Your task to perform on an android device: allow notifications from all sites in the chrome app Image 0: 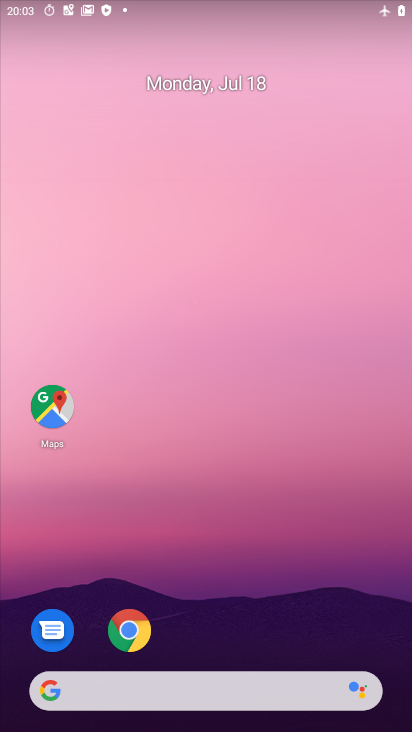
Step 0: drag from (251, 540) to (199, 47)
Your task to perform on an android device: allow notifications from all sites in the chrome app Image 1: 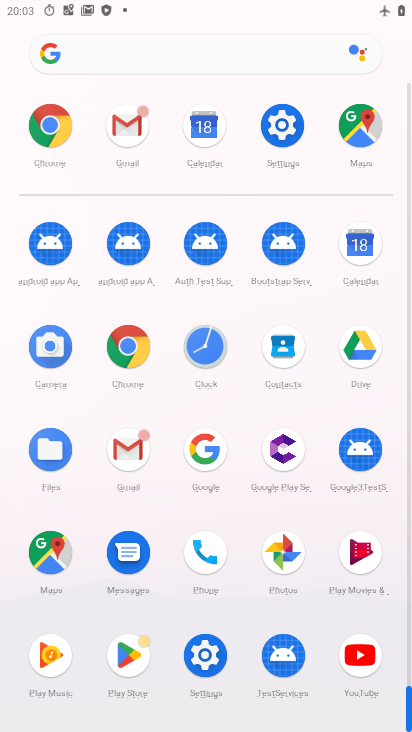
Step 1: click (75, 130)
Your task to perform on an android device: allow notifications from all sites in the chrome app Image 2: 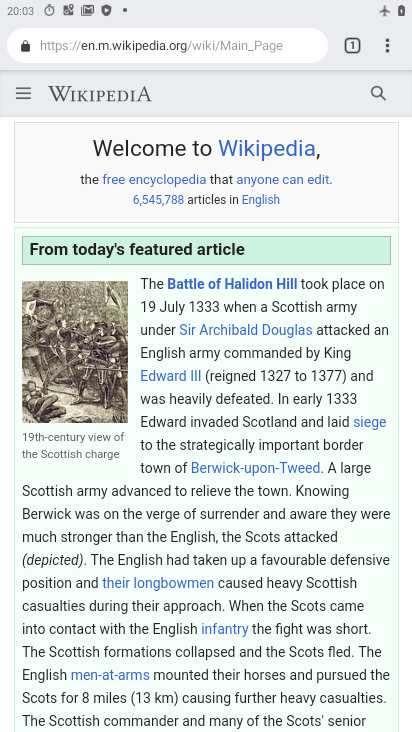
Step 2: drag from (389, 41) to (250, 501)
Your task to perform on an android device: allow notifications from all sites in the chrome app Image 3: 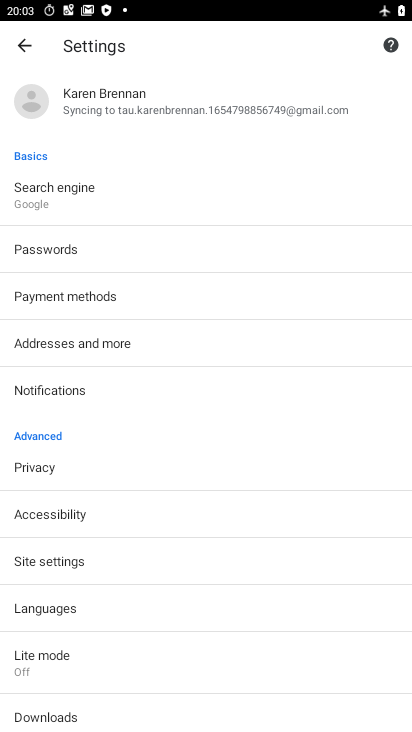
Step 3: click (69, 398)
Your task to perform on an android device: allow notifications from all sites in the chrome app Image 4: 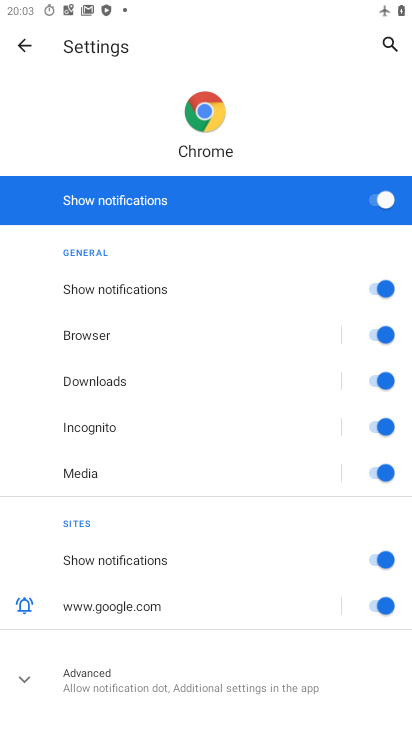
Step 4: click (22, 42)
Your task to perform on an android device: allow notifications from all sites in the chrome app Image 5: 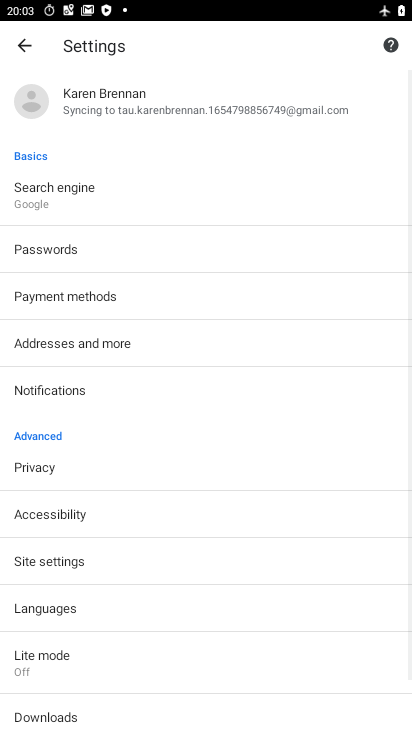
Step 5: click (94, 565)
Your task to perform on an android device: allow notifications from all sites in the chrome app Image 6: 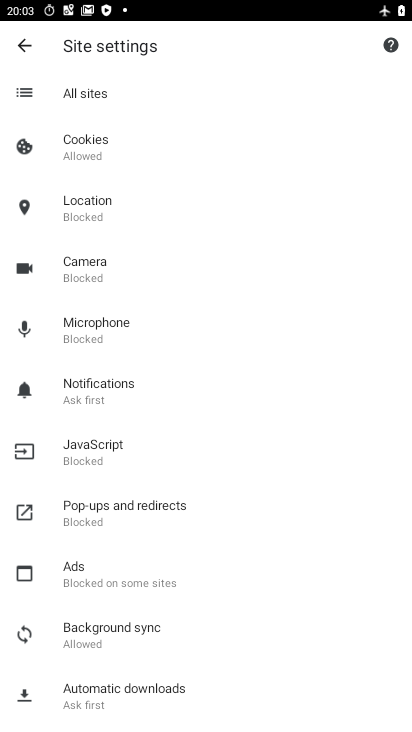
Step 6: click (97, 387)
Your task to perform on an android device: allow notifications from all sites in the chrome app Image 7: 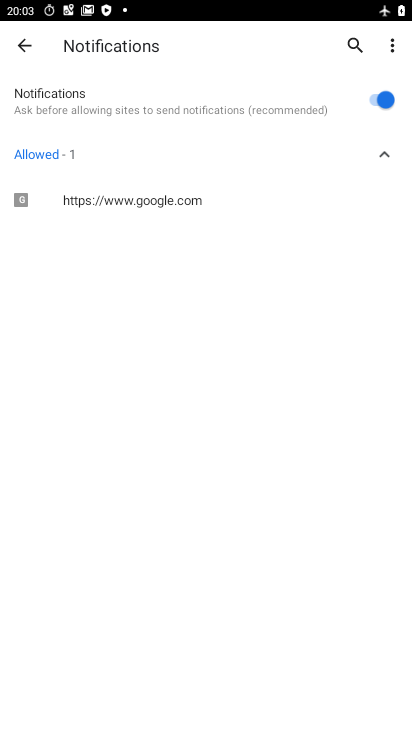
Step 7: task complete